Your task to perform on an android device: open wifi settings Image 0: 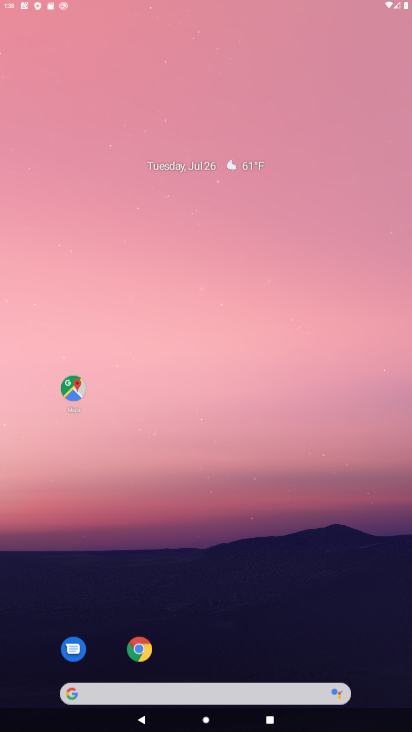
Step 0: press home button
Your task to perform on an android device: open wifi settings Image 1: 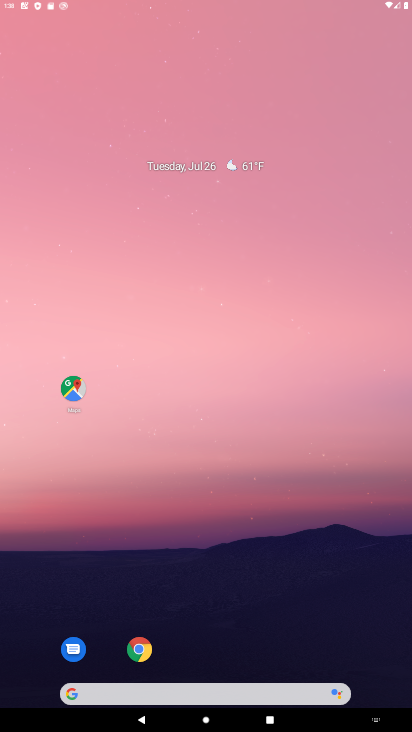
Step 1: drag from (222, 661) to (245, 0)
Your task to perform on an android device: open wifi settings Image 2: 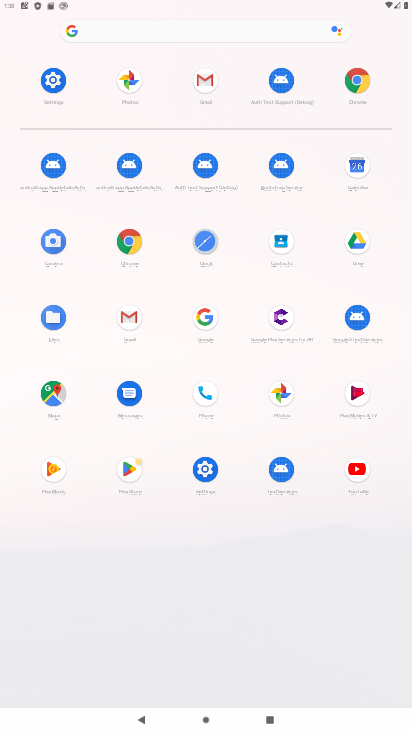
Step 2: click (204, 462)
Your task to perform on an android device: open wifi settings Image 3: 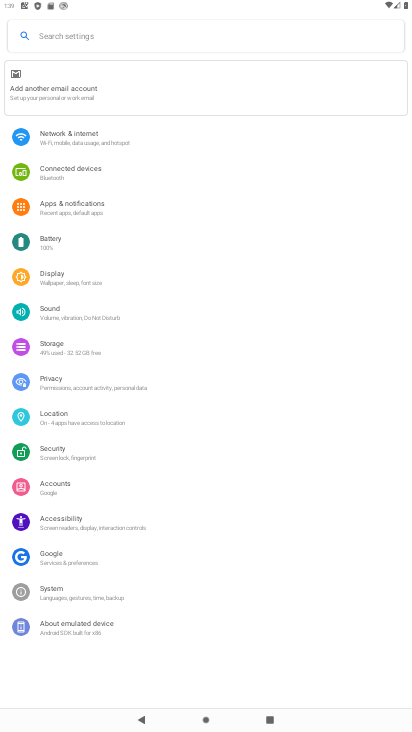
Step 3: click (71, 131)
Your task to perform on an android device: open wifi settings Image 4: 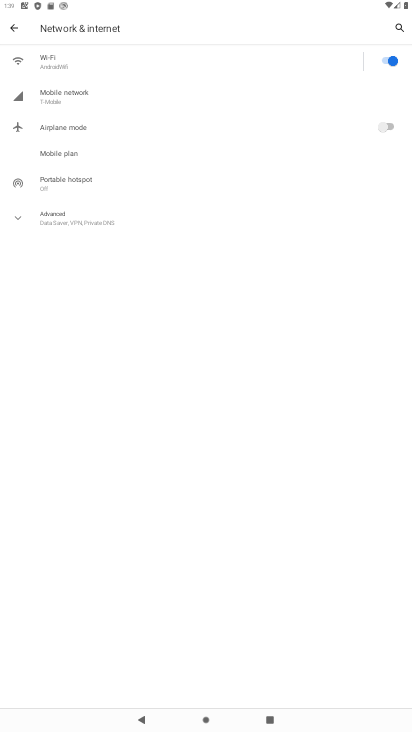
Step 4: click (23, 218)
Your task to perform on an android device: open wifi settings Image 5: 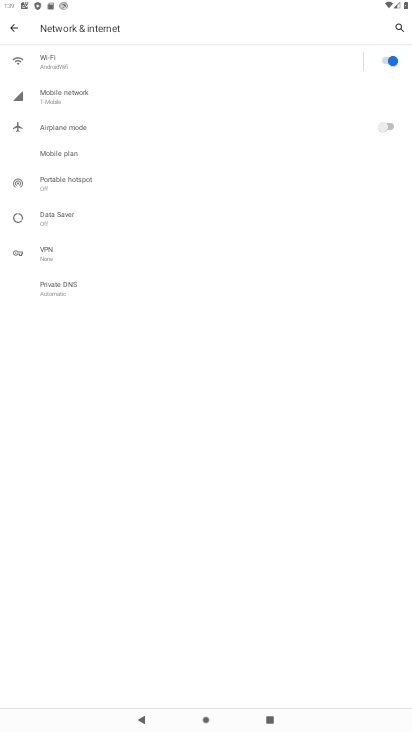
Step 5: click (70, 60)
Your task to perform on an android device: open wifi settings Image 6: 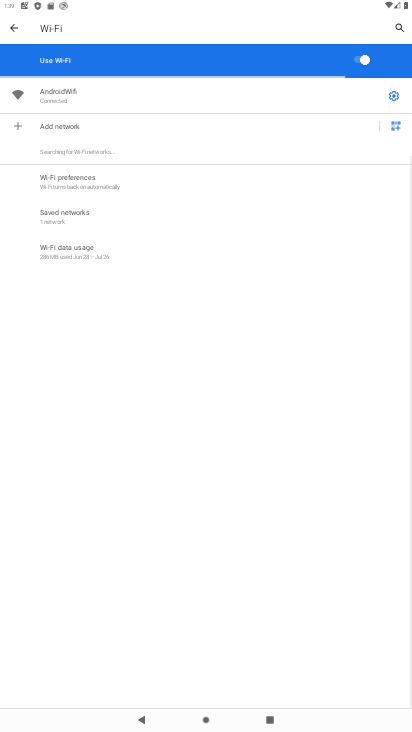
Step 6: task complete